Your task to perform on an android device: What is the news today? Image 0: 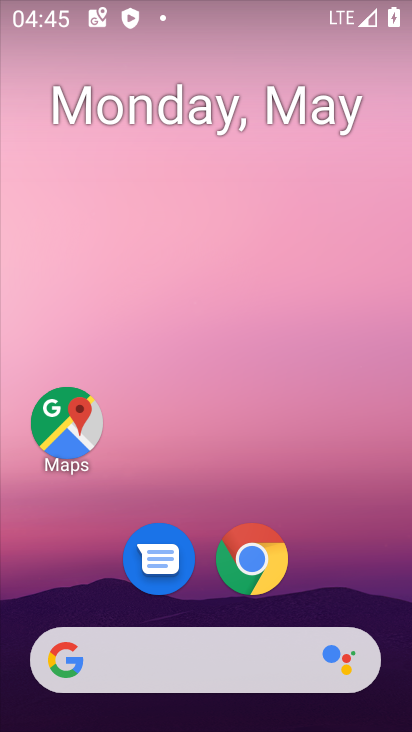
Step 0: drag from (277, 672) to (341, 105)
Your task to perform on an android device: What is the news today? Image 1: 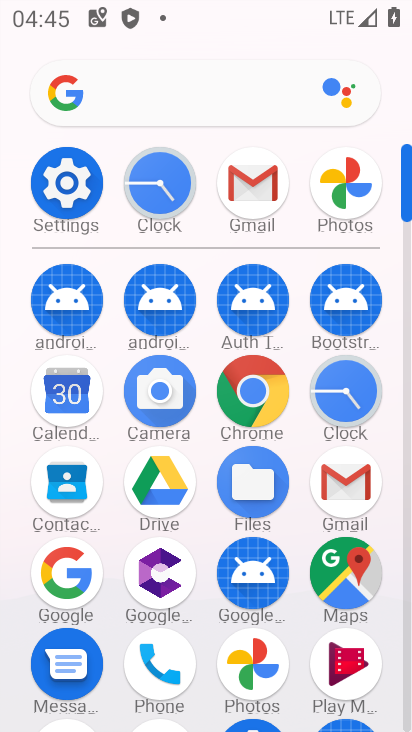
Step 1: click (263, 402)
Your task to perform on an android device: What is the news today? Image 2: 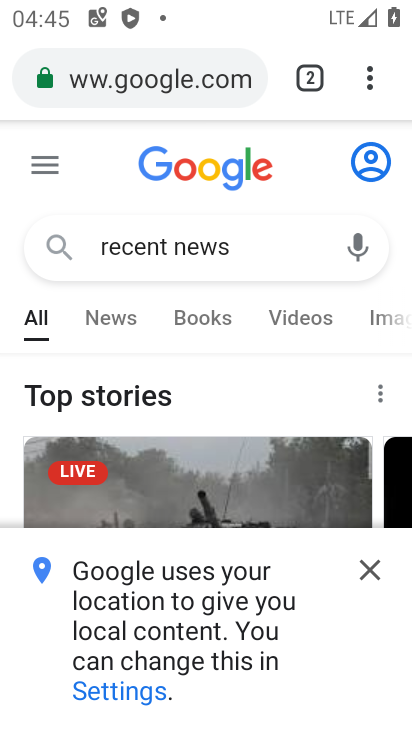
Step 2: click (259, 256)
Your task to perform on an android device: What is the news today? Image 3: 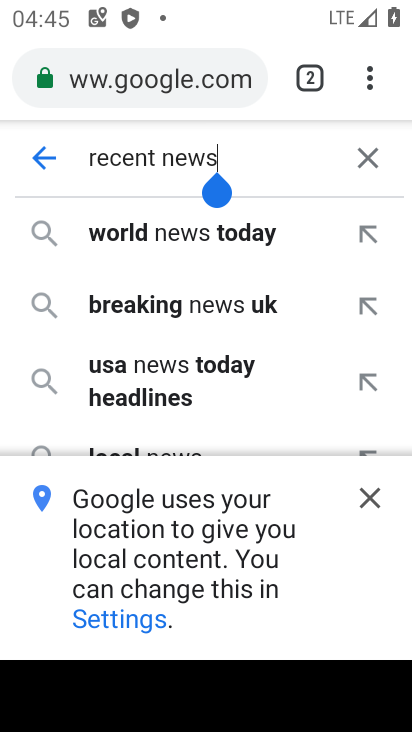
Step 3: click (213, 71)
Your task to perform on an android device: What is the news today? Image 4: 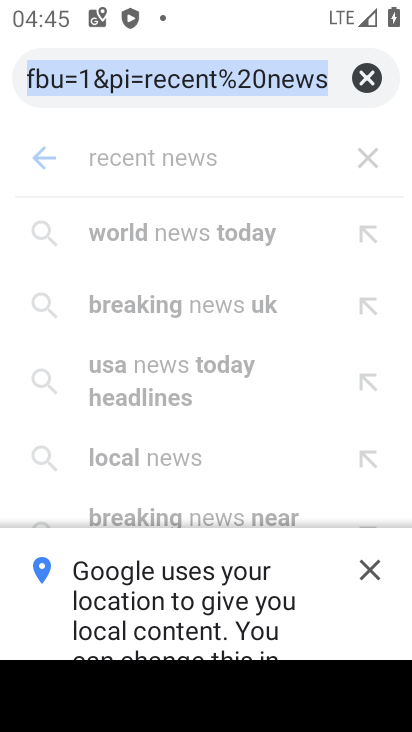
Step 4: type "news today"
Your task to perform on an android device: What is the news today? Image 5: 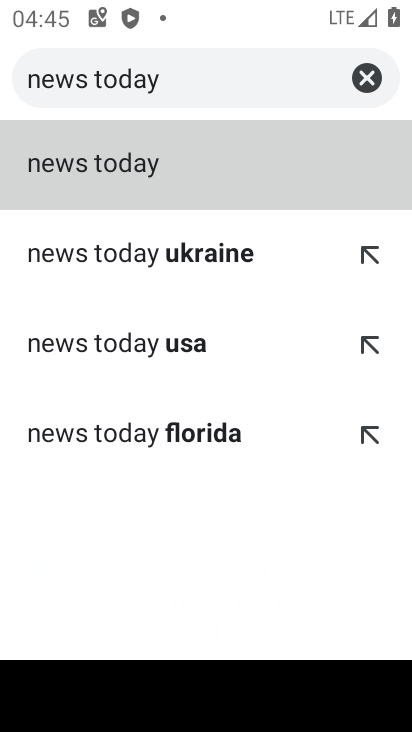
Step 5: click (168, 159)
Your task to perform on an android device: What is the news today? Image 6: 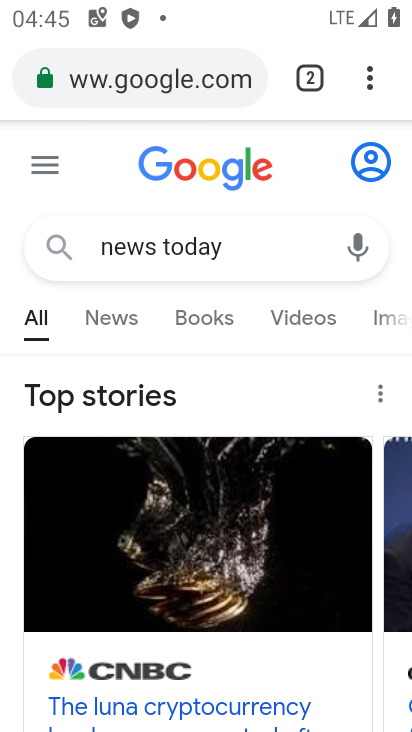
Step 6: task complete